Your task to perform on an android device: Open Chrome and go to the settings page Image 0: 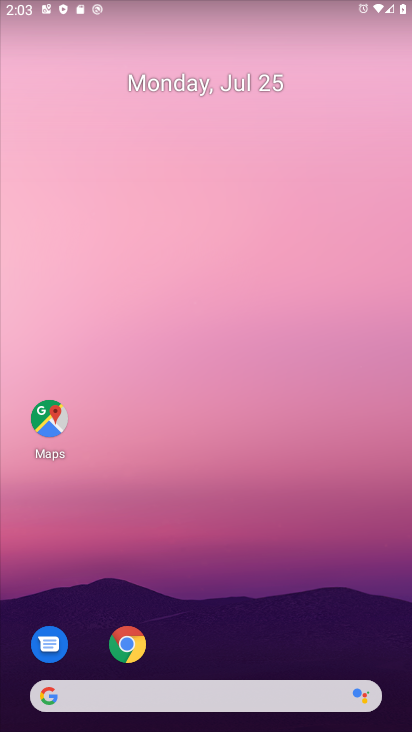
Step 0: drag from (375, 655) to (52, 45)
Your task to perform on an android device: Open Chrome and go to the settings page Image 1: 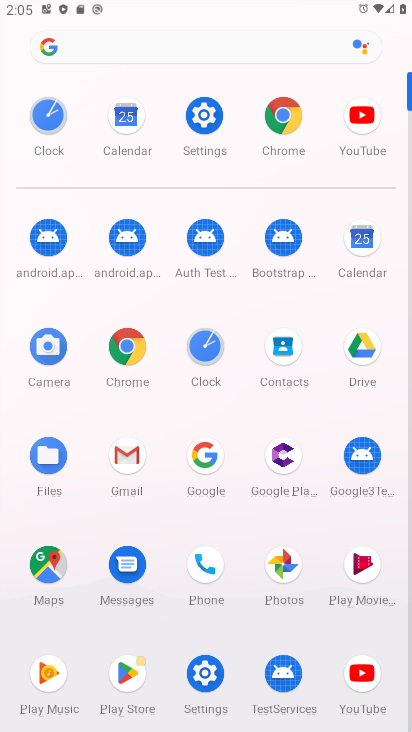
Step 1: click (142, 348)
Your task to perform on an android device: Open Chrome and go to the settings page Image 2: 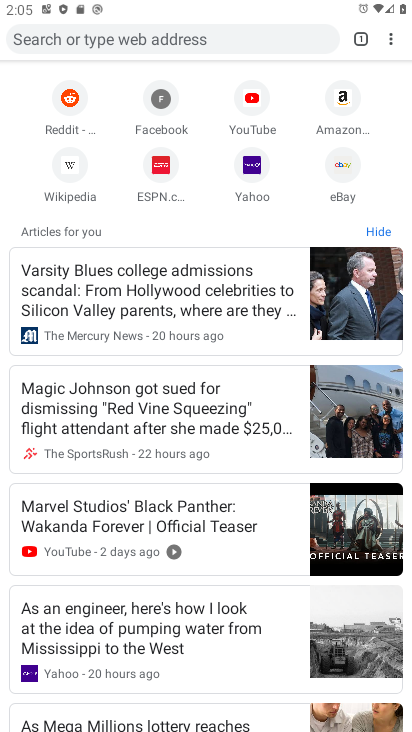
Step 2: click (395, 37)
Your task to perform on an android device: Open Chrome and go to the settings page Image 3: 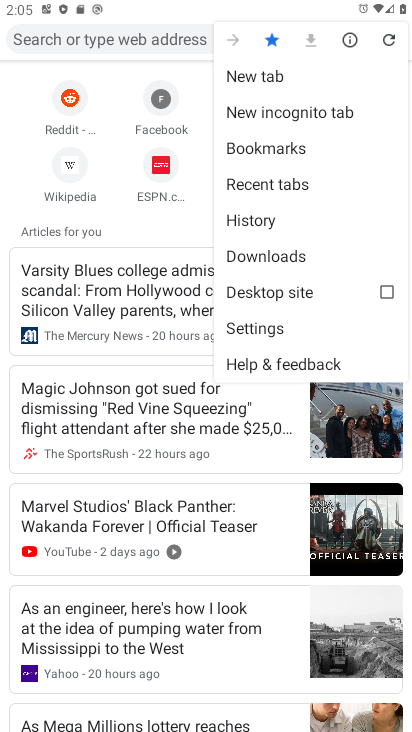
Step 3: click (248, 319)
Your task to perform on an android device: Open Chrome and go to the settings page Image 4: 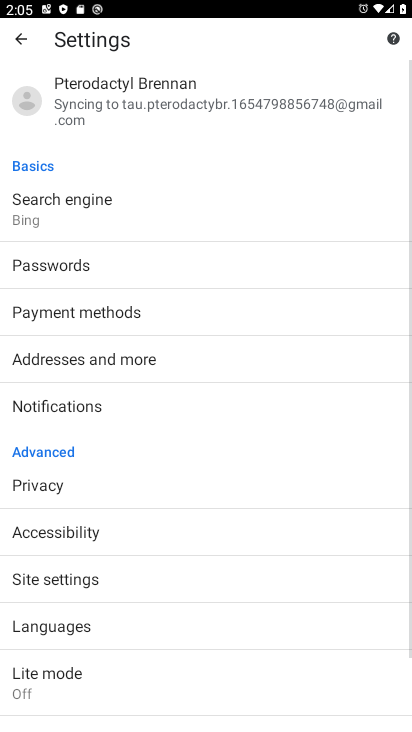
Step 4: task complete